Your task to perform on an android device: set an alarm Image 0: 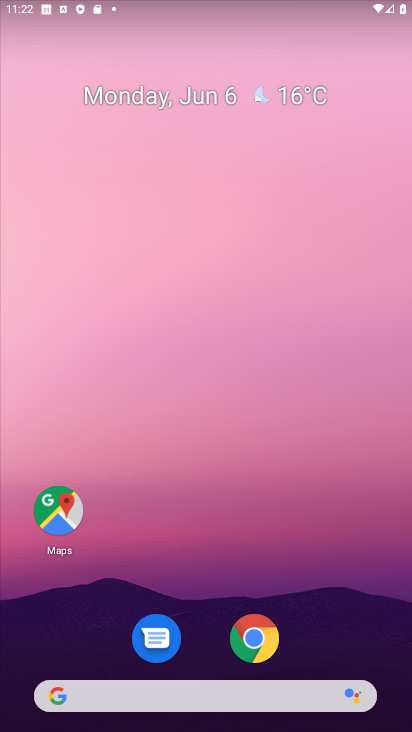
Step 0: drag from (251, 721) to (208, 314)
Your task to perform on an android device: set an alarm Image 1: 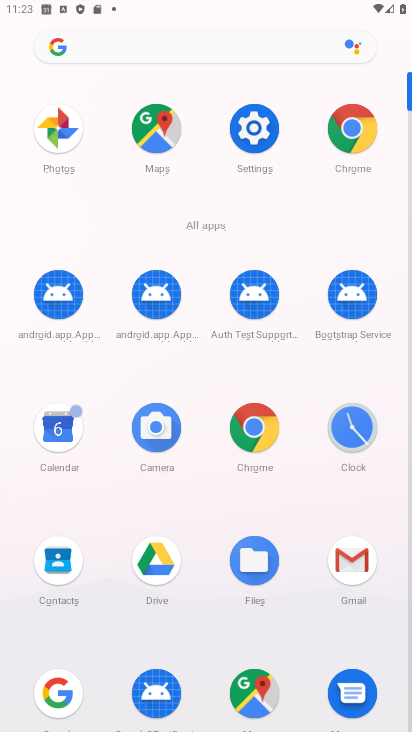
Step 1: click (350, 427)
Your task to perform on an android device: set an alarm Image 2: 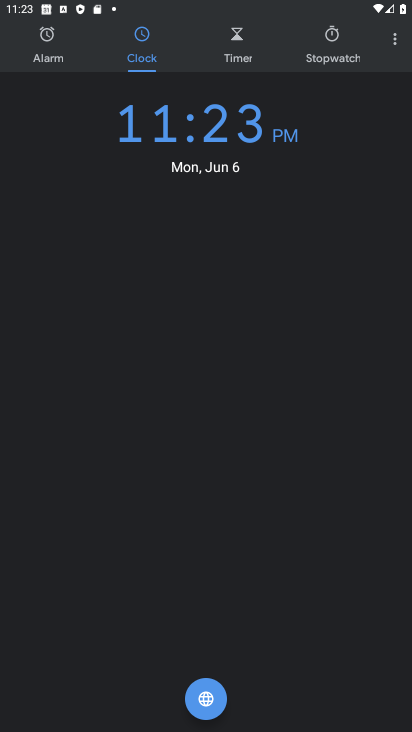
Step 2: click (62, 66)
Your task to perform on an android device: set an alarm Image 3: 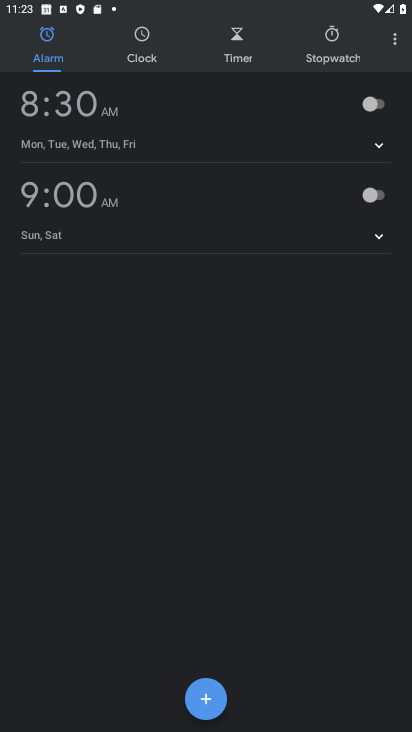
Step 3: click (374, 109)
Your task to perform on an android device: set an alarm Image 4: 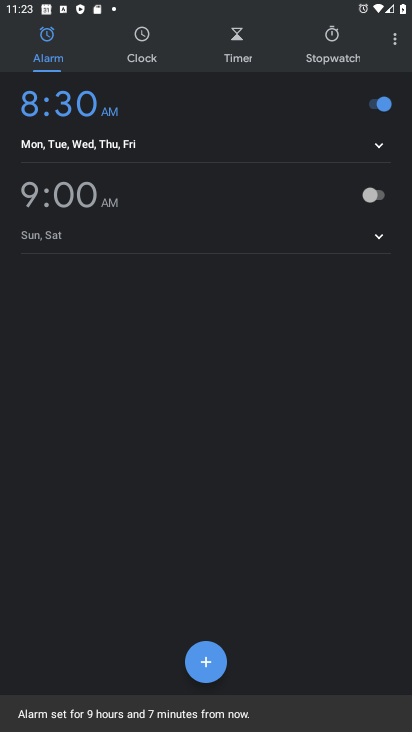
Step 4: task complete